Your task to perform on an android device: turn off wifi Image 0: 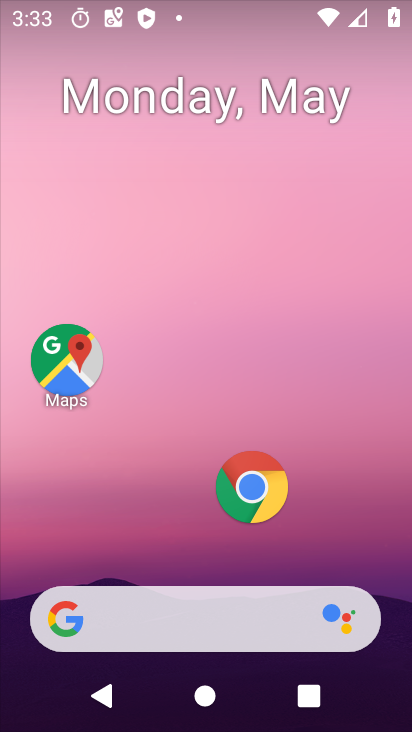
Step 0: drag from (197, 564) to (200, 34)
Your task to perform on an android device: turn off wifi Image 1: 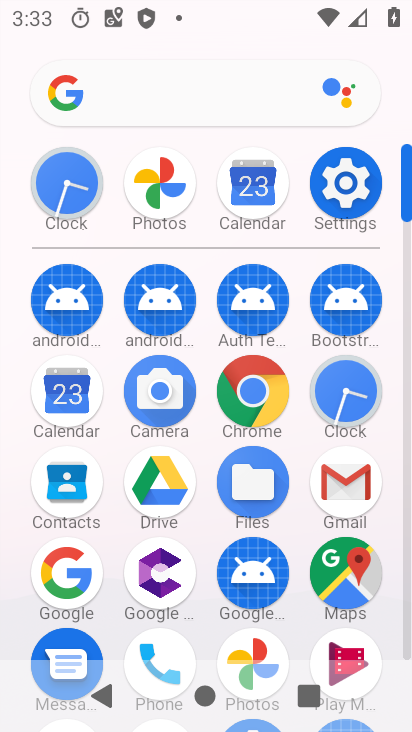
Step 1: click (338, 173)
Your task to perform on an android device: turn off wifi Image 2: 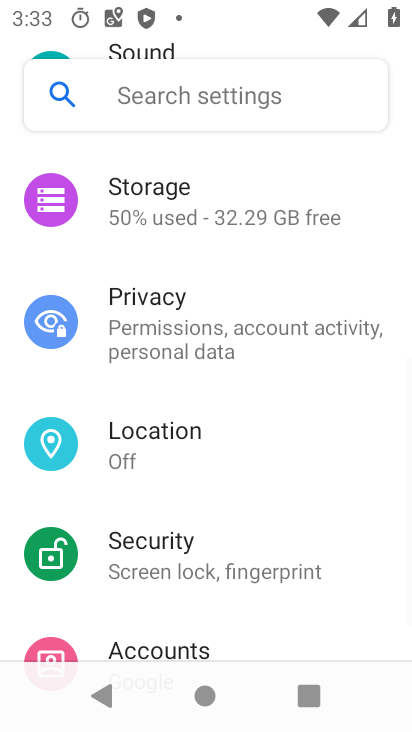
Step 2: drag from (230, 229) to (305, 570)
Your task to perform on an android device: turn off wifi Image 3: 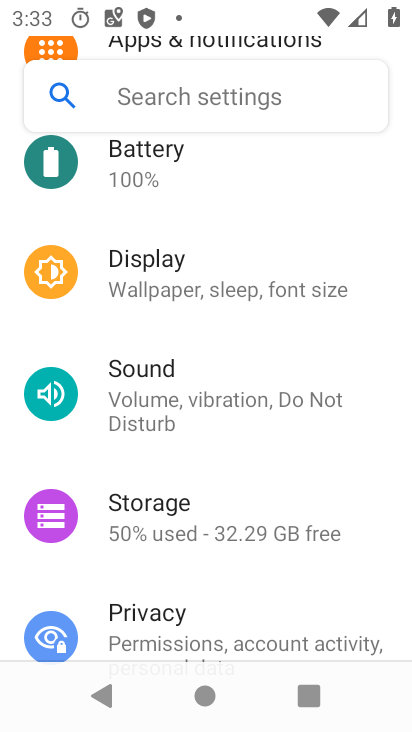
Step 3: drag from (234, 282) to (267, 601)
Your task to perform on an android device: turn off wifi Image 4: 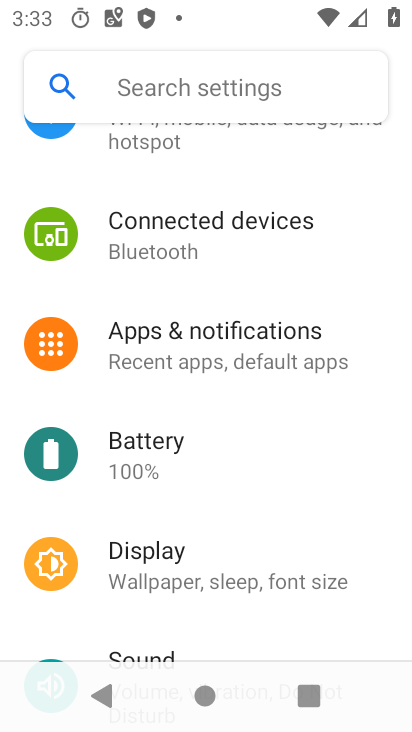
Step 4: drag from (255, 267) to (306, 638)
Your task to perform on an android device: turn off wifi Image 5: 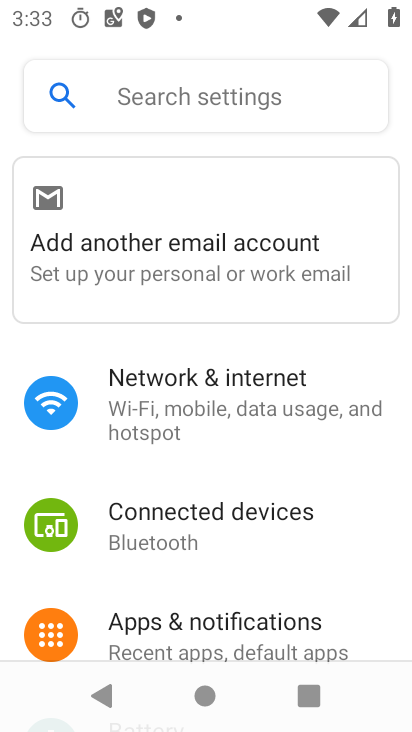
Step 5: click (158, 405)
Your task to perform on an android device: turn off wifi Image 6: 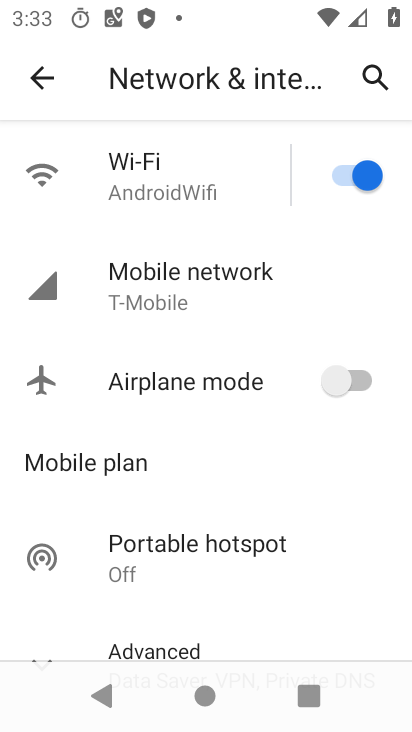
Step 6: click (130, 198)
Your task to perform on an android device: turn off wifi Image 7: 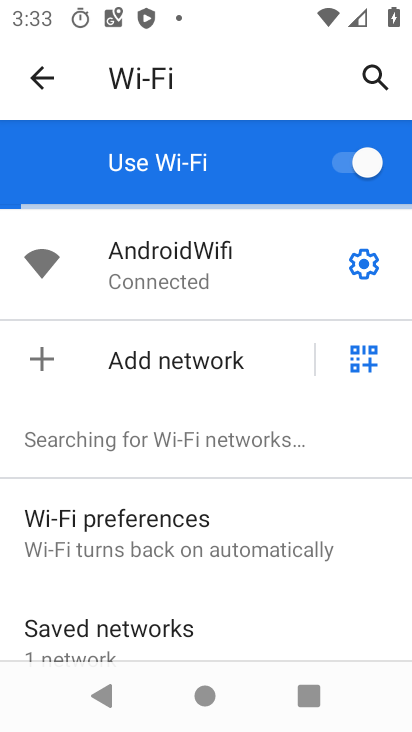
Step 7: click (367, 160)
Your task to perform on an android device: turn off wifi Image 8: 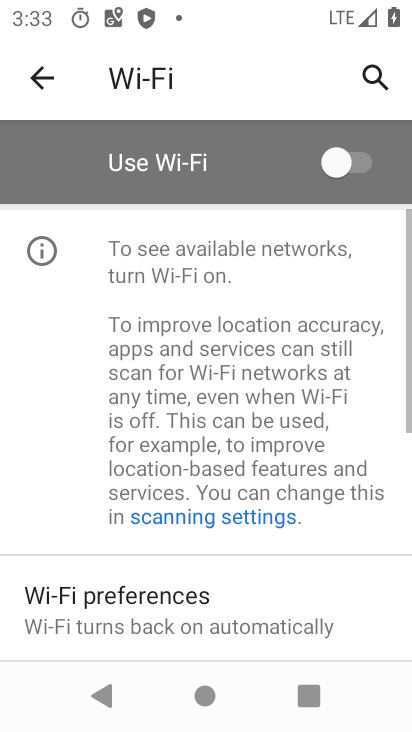
Step 8: task complete